Your task to perform on an android device: Go to Google maps Image 0: 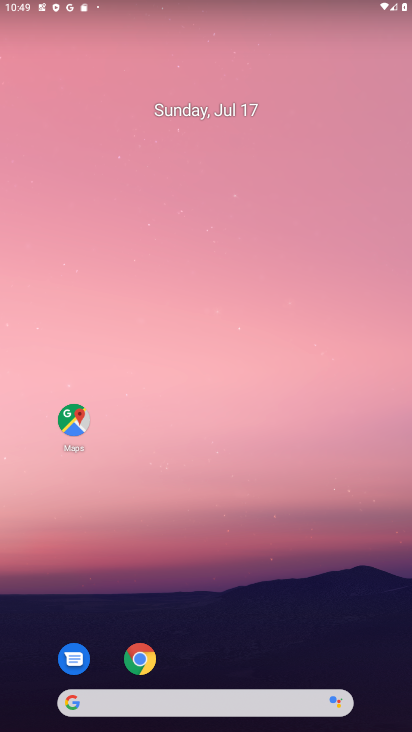
Step 0: click (69, 438)
Your task to perform on an android device: Go to Google maps Image 1: 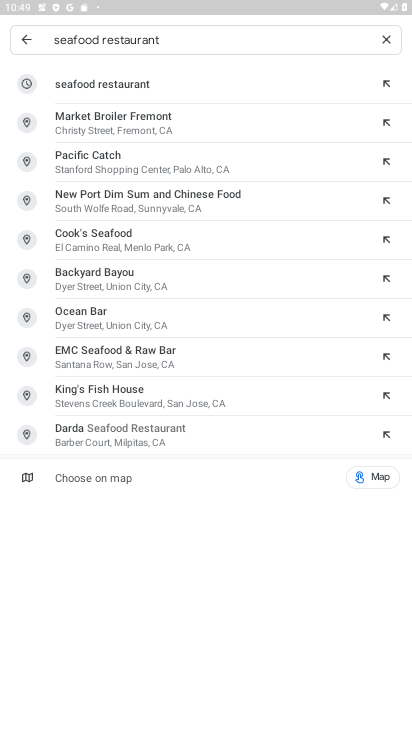
Step 1: click (22, 36)
Your task to perform on an android device: Go to Google maps Image 2: 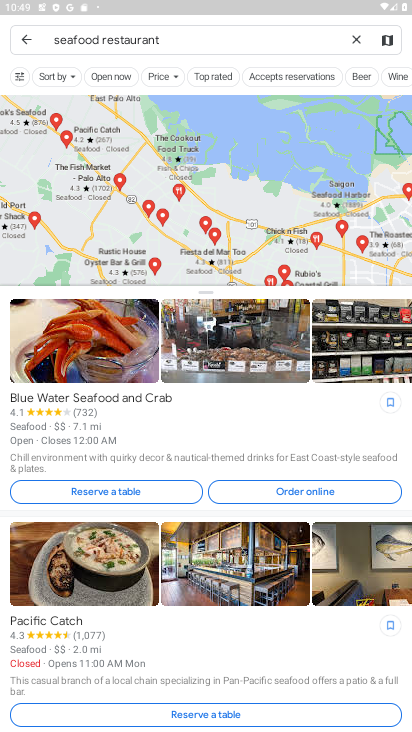
Step 2: task complete